Your task to perform on an android device: Is it going to rain this weekend? Image 0: 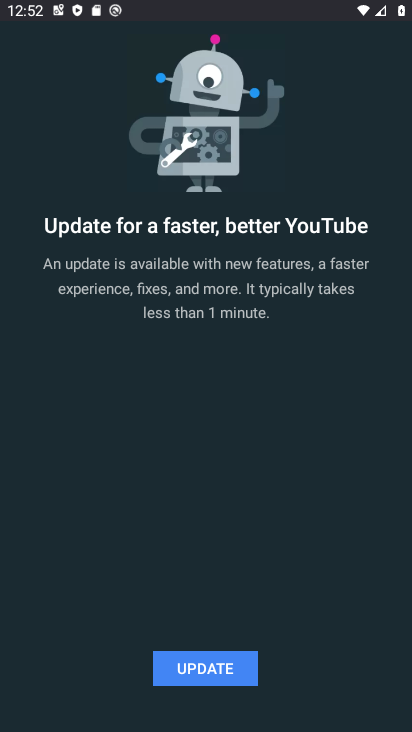
Step 0: press back button
Your task to perform on an android device: Is it going to rain this weekend? Image 1: 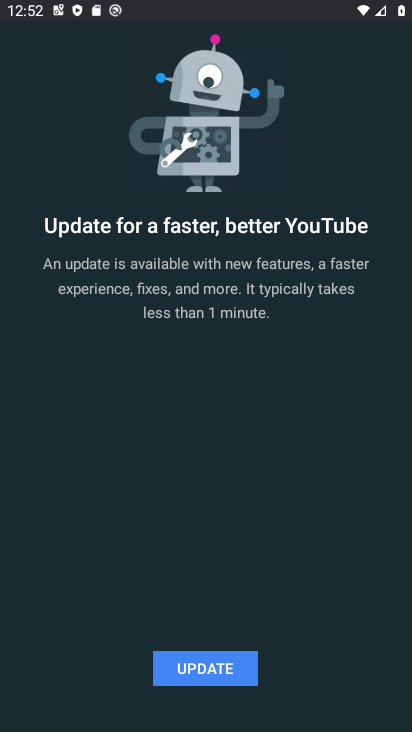
Step 1: press back button
Your task to perform on an android device: Is it going to rain this weekend? Image 2: 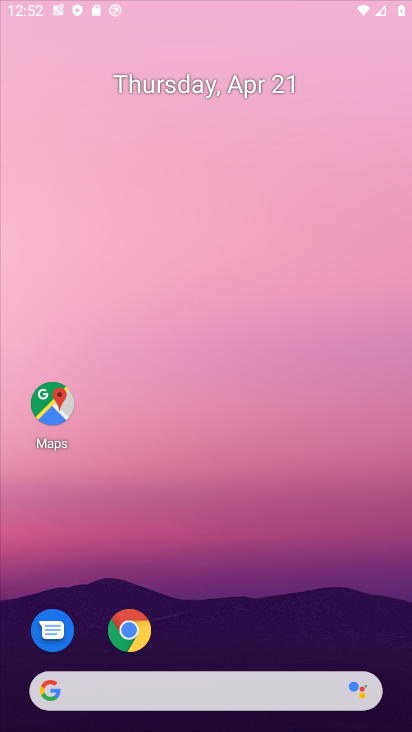
Step 2: press back button
Your task to perform on an android device: Is it going to rain this weekend? Image 3: 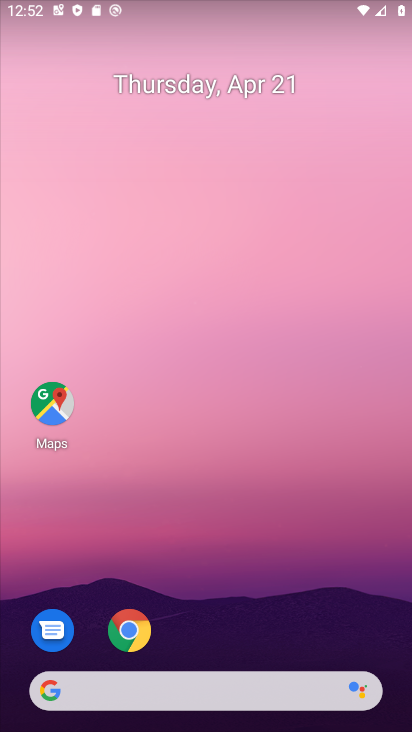
Step 3: press back button
Your task to perform on an android device: Is it going to rain this weekend? Image 4: 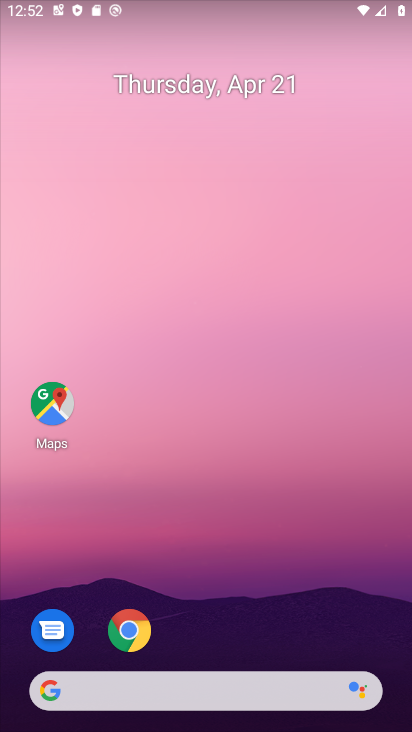
Step 4: click (268, 674)
Your task to perform on an android device: Is it going to rain this weekend? Image 5: 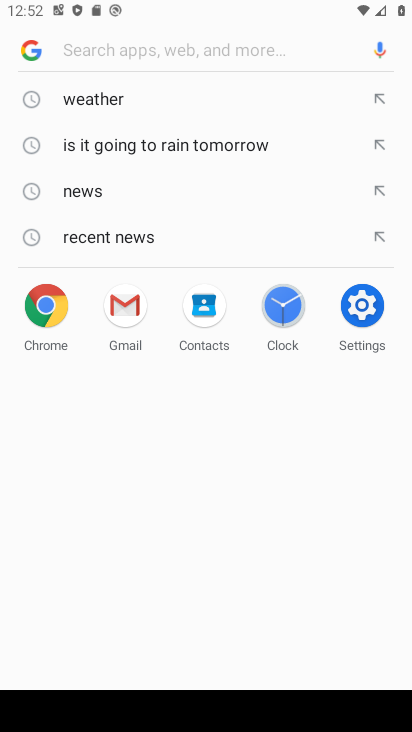
Step 5: click (181, 138)
Your task to perform on an android device: Is it going to rain this weekend? Image 6: 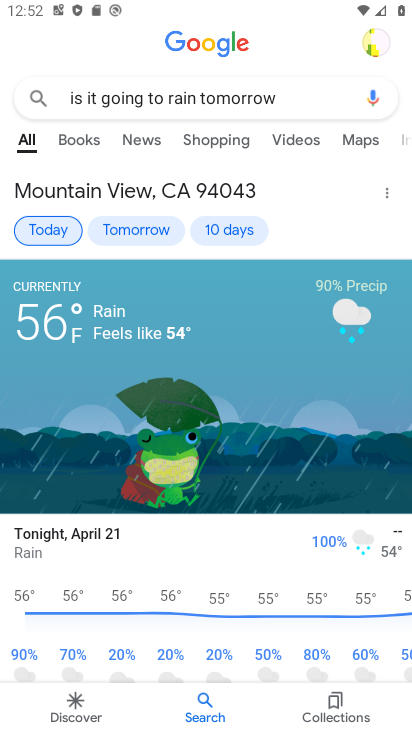
Step 6: click (144, 244)
Your task to perform on an android device: Is it going to rain this weekend? Image 7: 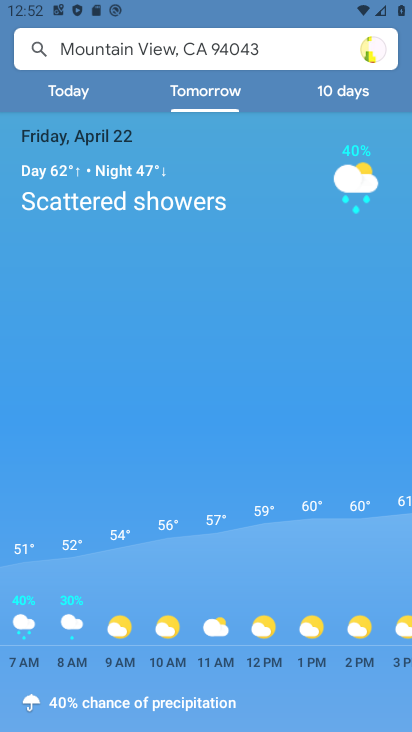
Step 7: task complete